Your task to perform on an android device: Open privacy settings Image 0: 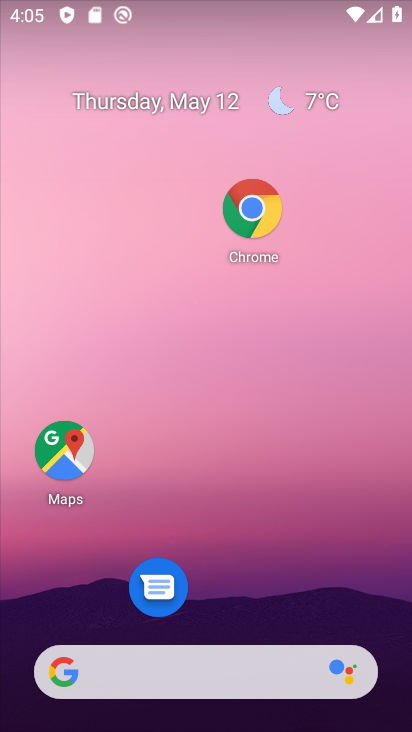
Step 0: drag from (238, 585) to (263, 152)
Your task to perform on an android device: Open privacy settings Image 1: 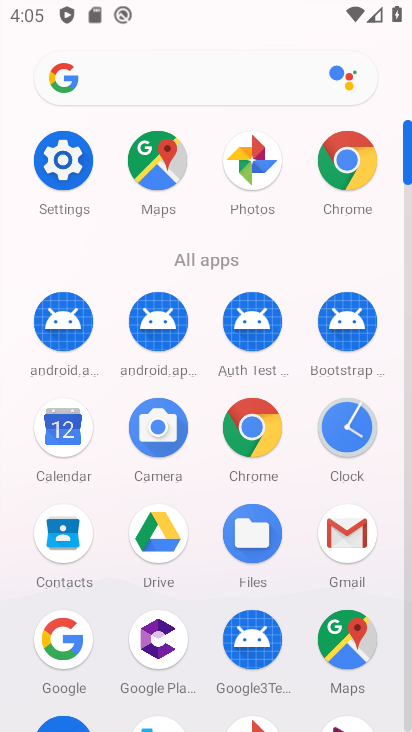
Step 1: click (70, 200)
Your task to perform on an android device: Open privacy settings Image 2: 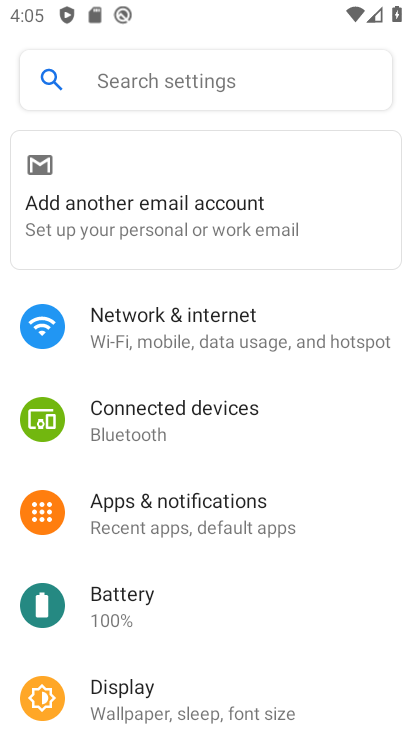
Step 2: drag from (188, 676) to (220, 211)
Your task to perform on an android device: Open privacy settings Image 3: 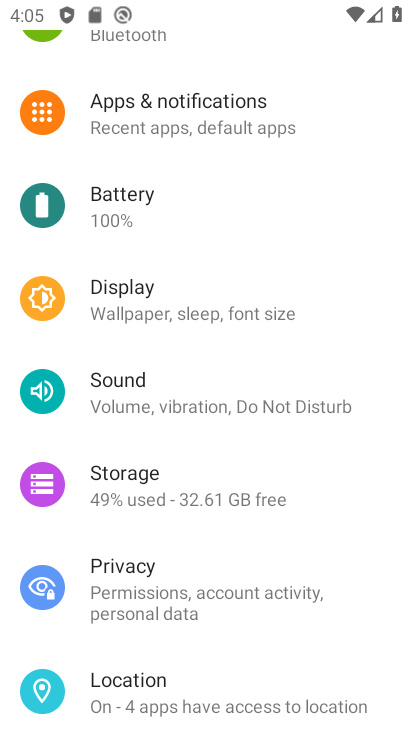
Step 3: click (97, 594)
Your task to perform on an android device: Open privacy settings Image 4: 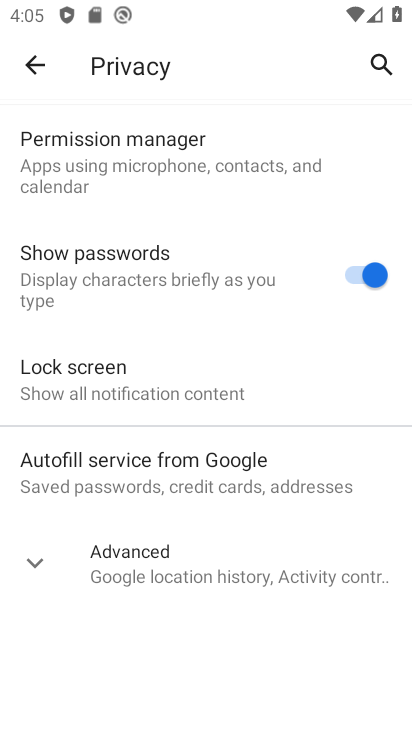
Step 4: task complete